Your task to perform on an android device: change text size in settings app Image 0: 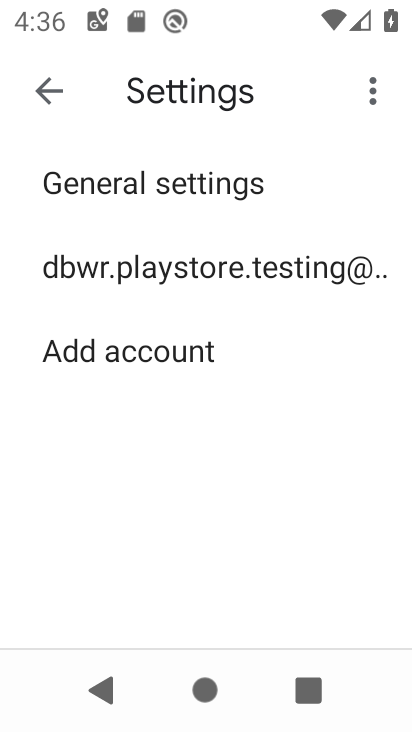
Step 0: press home button
Your task to perform on an android device: change text size in settings app Image 1: 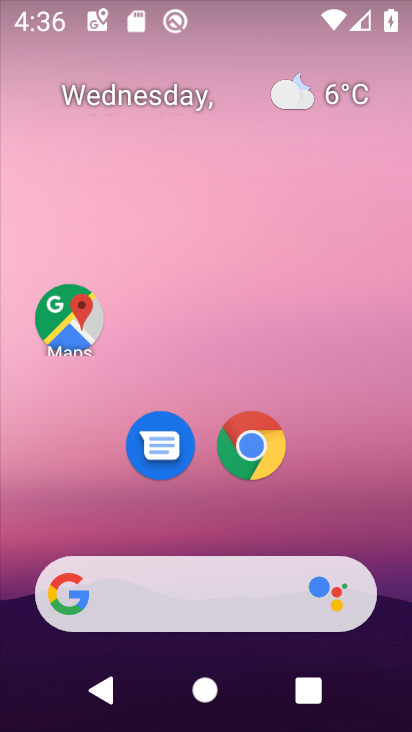
Step 1: drag from (251, 509) to (332, 13)
Your task to perform on an android device: change text size in settings app Image 2: 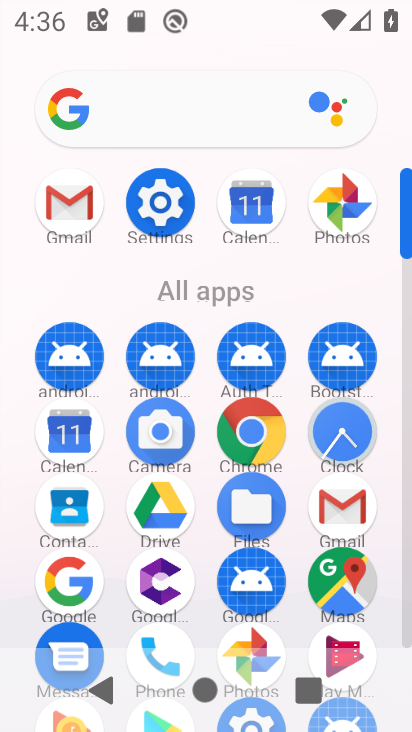
Step 2: click (154, 206)
Your task to perform on an android device: change text size in settings app Image 3: 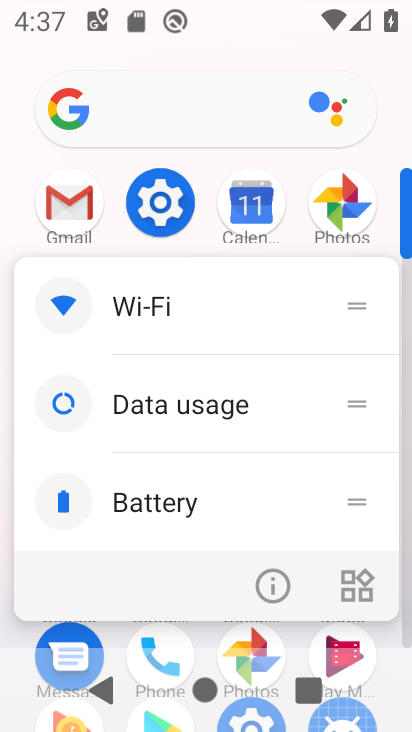
Step 3: click (164, 196)
Your task to perform on an android device: change text size in settings app Image 4: 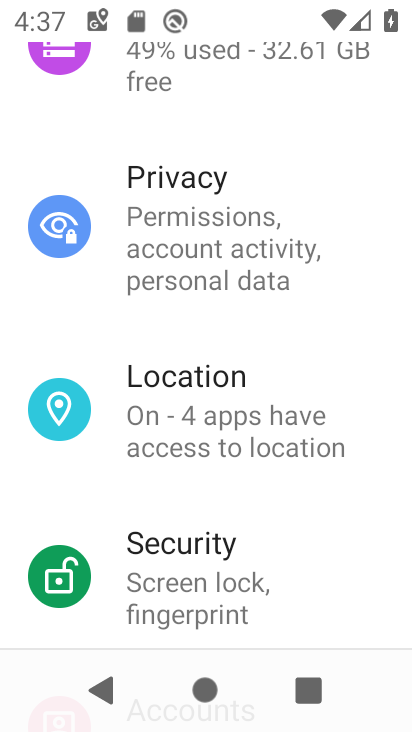
Step 4: drag from (248, 209) to (242, 633)
Your task to perform on an android device: change text size in settings app Image 5: 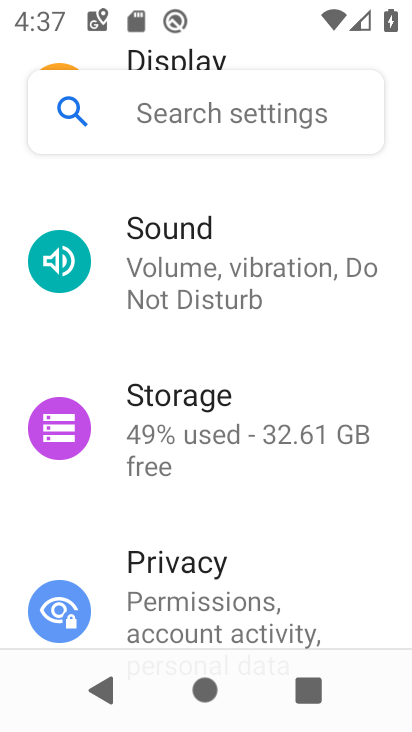
Step 5: drag from (261, 264) to (284, 673)
Your task to perform on an android device: change text size in settings app Image 6: 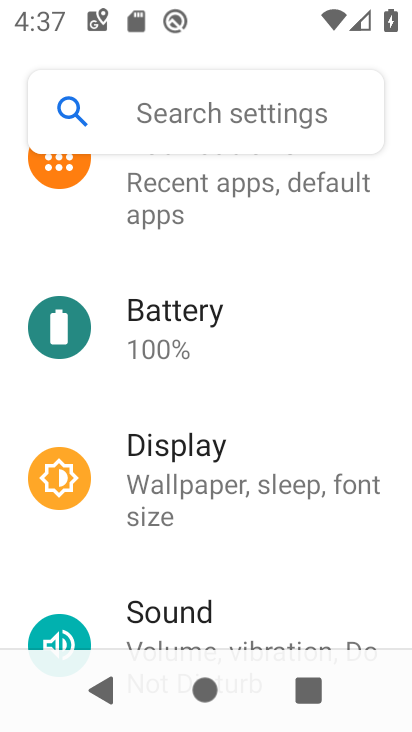
Step 6: click (209, 452)
Your task to perform on an android device: change text size in settings app Image 7: 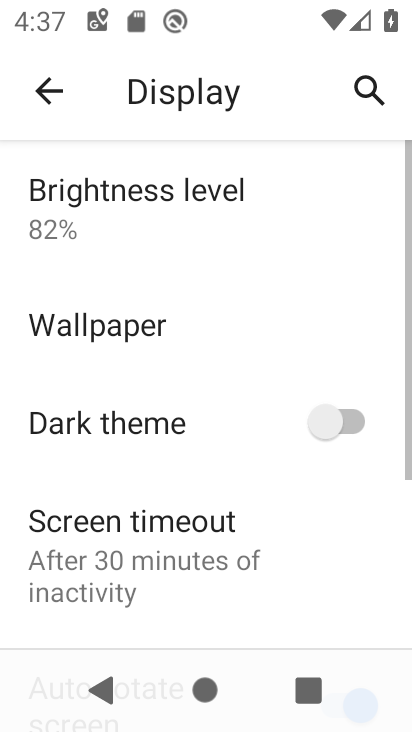
Step 7: drag from (175, 508) to (246, 3)
Your task to perform on an android device: change text size in settings app Image 8: 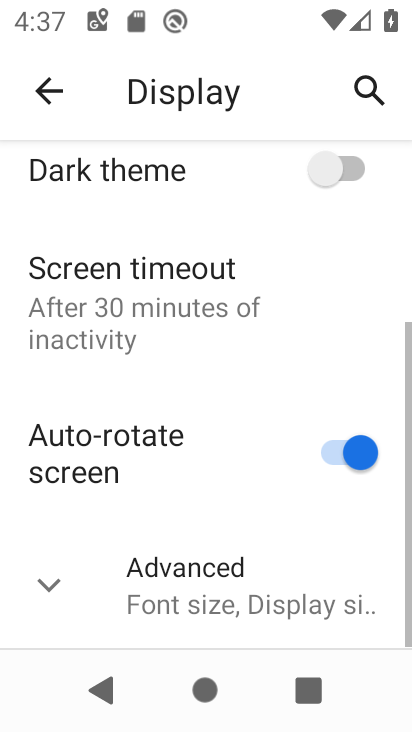
Step 8: click (161, 591)
Your task to perform on an android device: change text size in settings app Image 9: 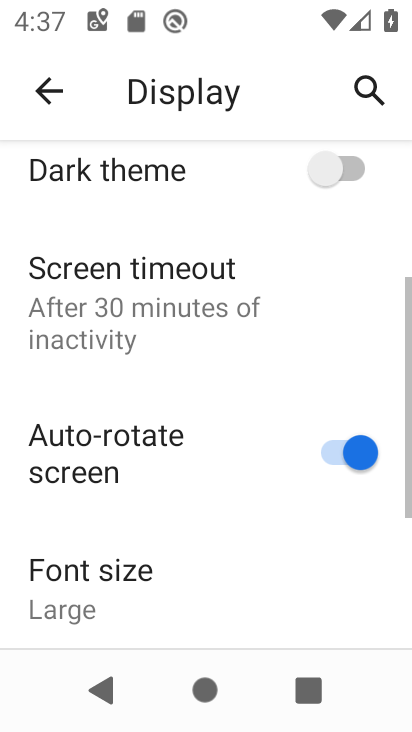
Step 9: click (127, 584)
Your task to perform on an android device: change text size in settings app Image 10: 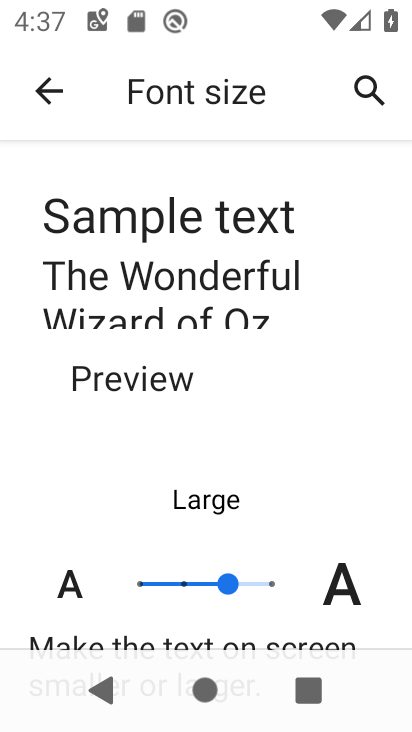
Step 10: click (276, 575)
Your task to perform on an android device: change text size in settings app Image 11: 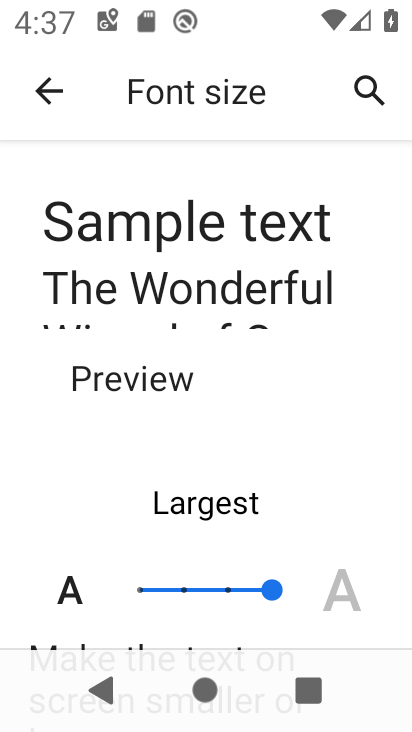
Step 11: task complete